Your task to perform on an android device: change alarm snooze length Image 0: 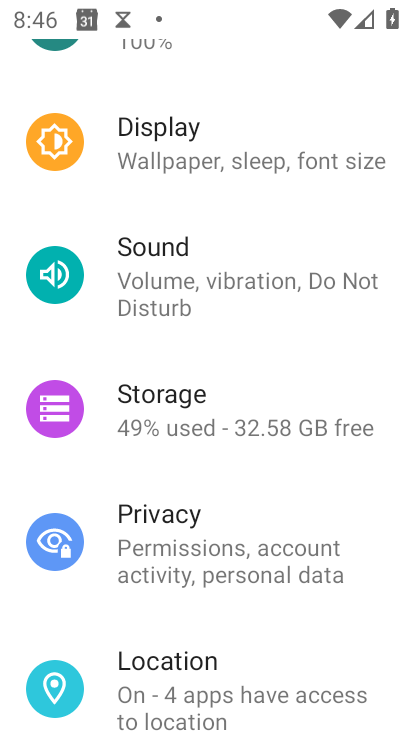
Step 0: press home button
Your task to perform on an android device: change alarm snooze length Image 1: 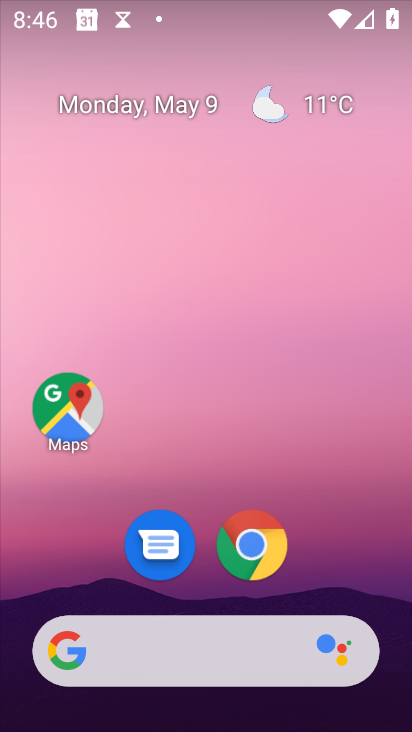
Step 1: drag from (218, 721) to (233, 248)
Your task to perform on an android device: change alarm snooze length Image 2: 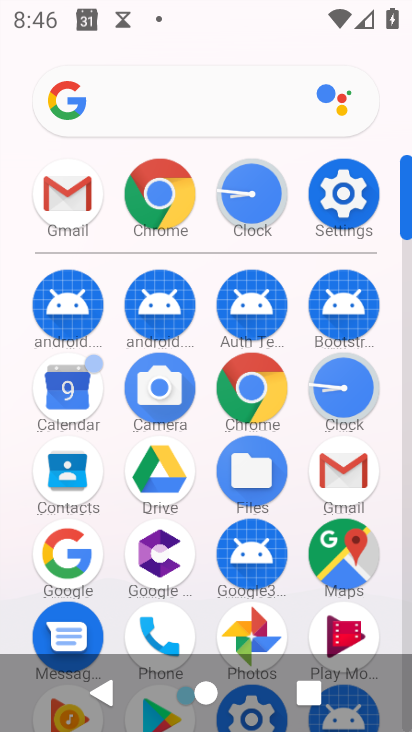
Step 2: click (346, 404)
Your task to perform on an android device: change alarm snooze length Image 3: 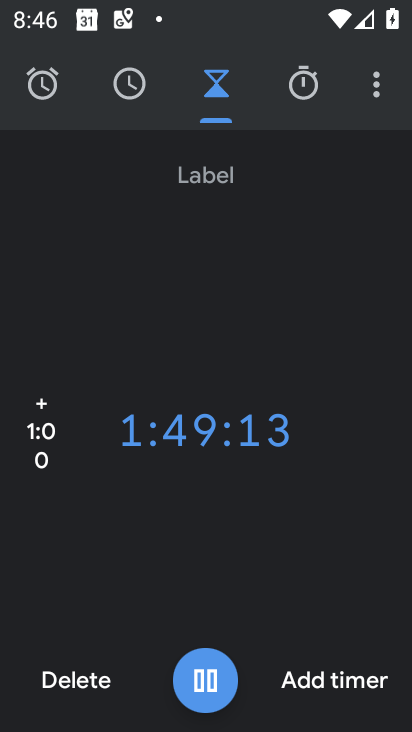
Step 3: click (378, 83)
Your task to perform on an android device: change alarm snooze length Image 4: 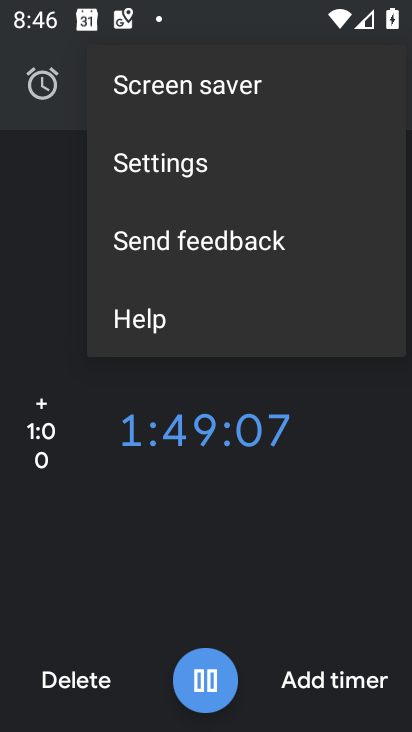
Step 4: click (139, 160)
Your task to perform on an android device: change alarm snooze length Image 5: 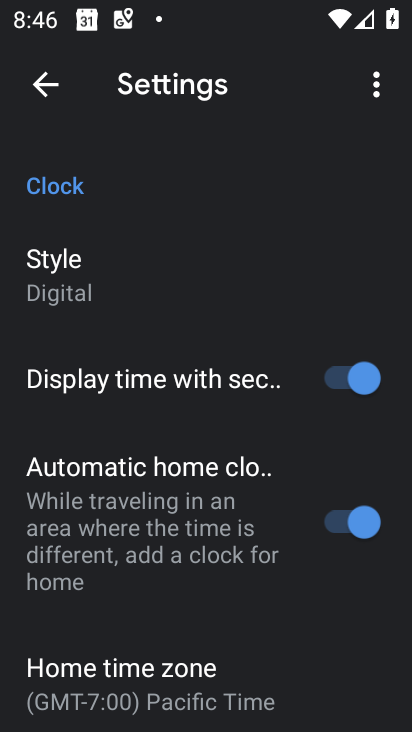
Step 5: drag from (182, 631) to (206, 215)
Your task to perform on an android device: change alarm snooze length Image 6: 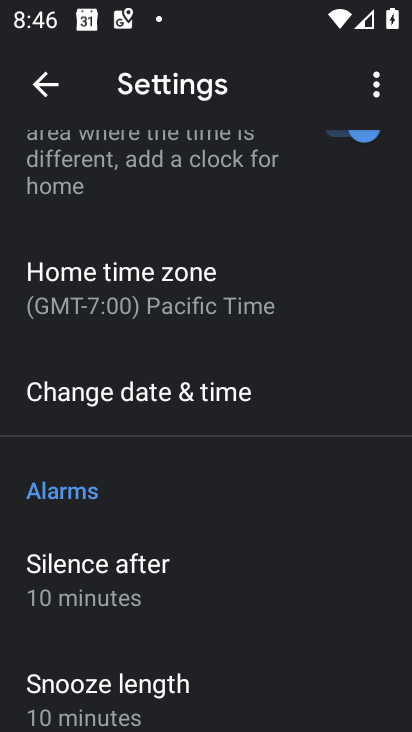
Step 6: drag from (226, 641) to (236, 384)
Your task to perform on an android device: change alarm snooze length Image 7: 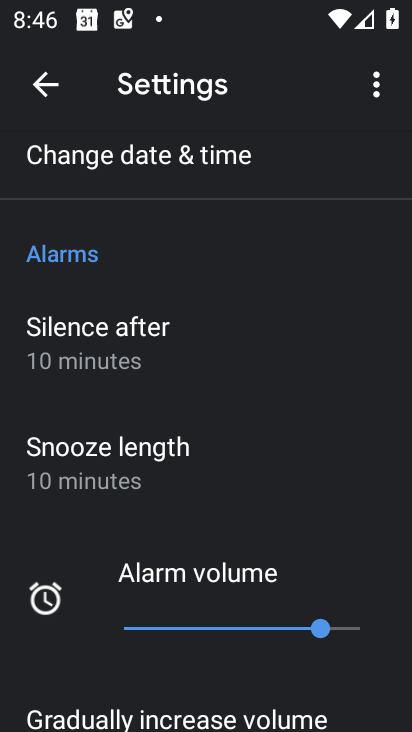
Step 7: click (117, 453)
Your task to perform on an android device: change alarm snooze length Image 8: 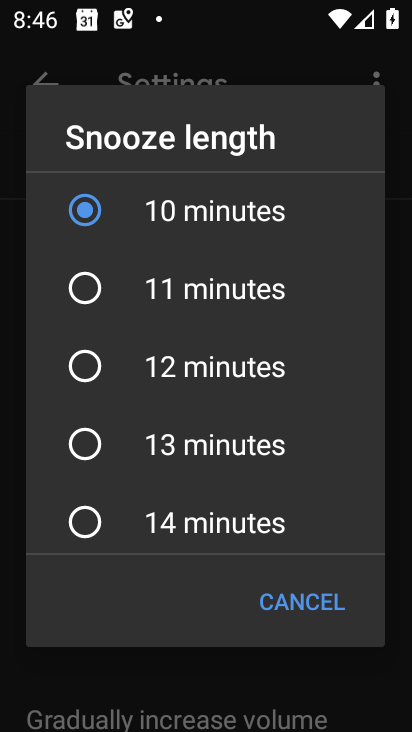
Step 8: click (84, 444)
Your task to perform on an android device: change alarm snooze length Image 9: 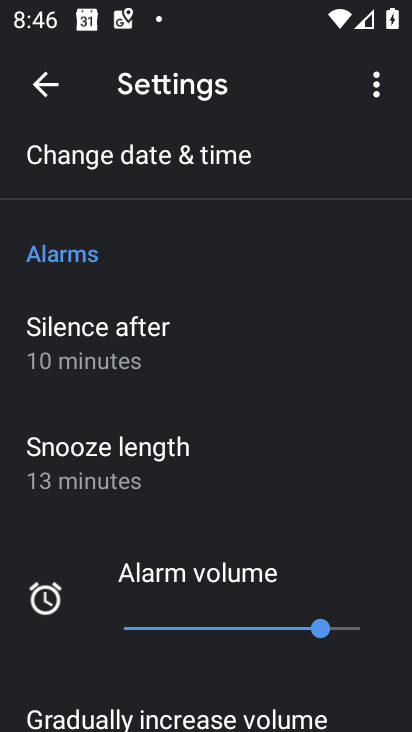
Step 9: task complete